Your task to perform on an android device: Open the calendar app, open the side menu, and click the "Day" option Image 0: 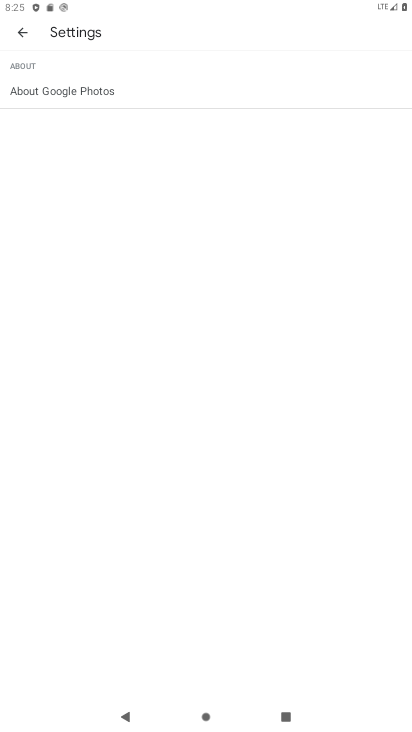
Step 0: drag from (216, 687) to (195, 348)
Your task to perform on an android device: Open the calendar app, open the side menu, and click the "Day" option Image 1: 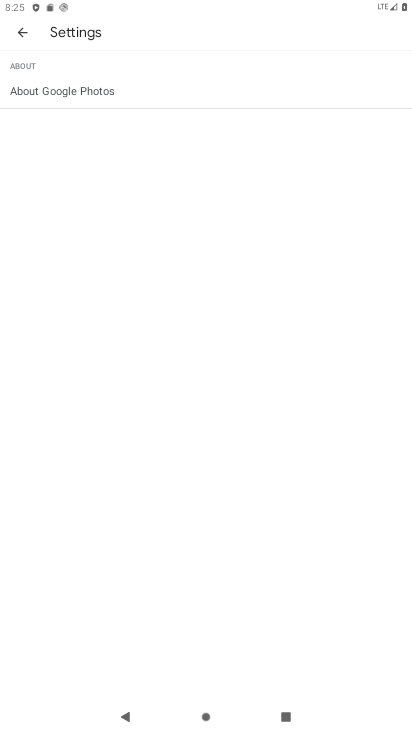
Step 1: press home button
Your task to perform on an android device: Open the calendar app, open the side menu, and click the "Day" option Image 2: 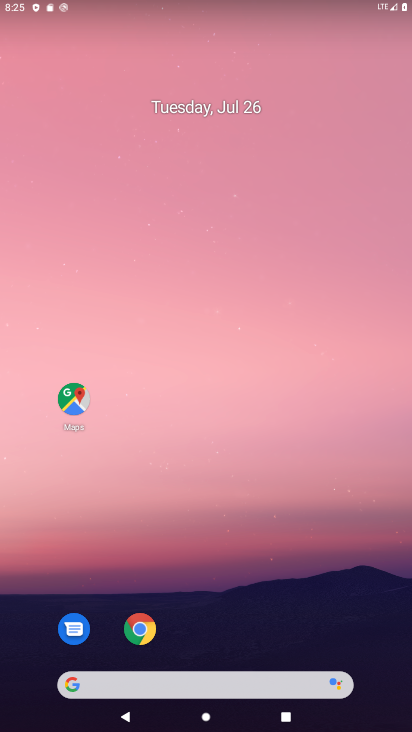
Step 2: drag from (216, 648) to (215, 36)
Your task to perform on an android device: Open the calendar app, open the side menu, and click the "Day" option Image 3: 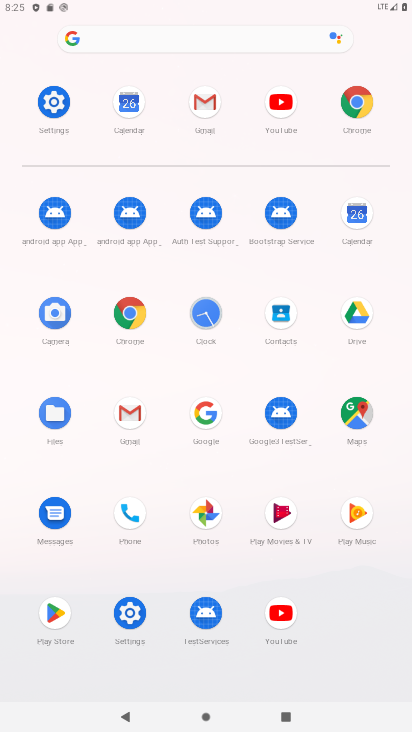
Step 3: click (364, 203)
Your task to perform on an android device: Open the calendar app, open the side menu, and click the "Day" option Image 4: 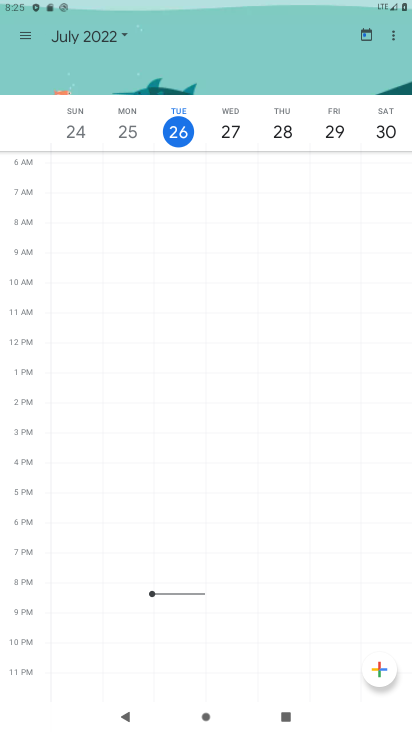
Step 4: click (17, 38)
Your task to perform on an android device: Open the calendar app, open the side menu, and click the "Day" option Image 5: 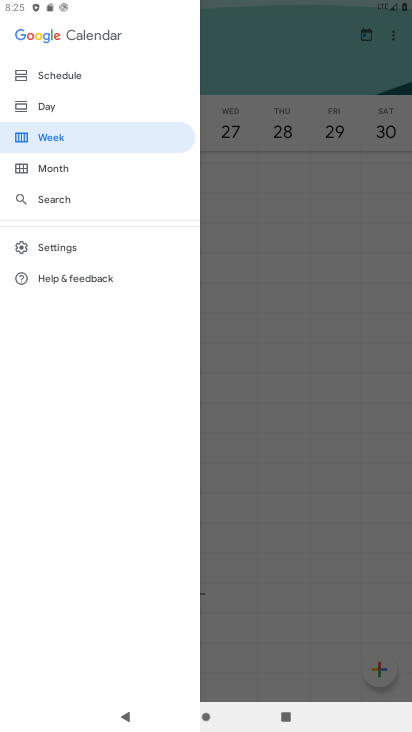
Step 5: click (12, 40)
Your task to perform on an android device: Open the calendar app, open the side menu, and click the "Day" option Image 6: 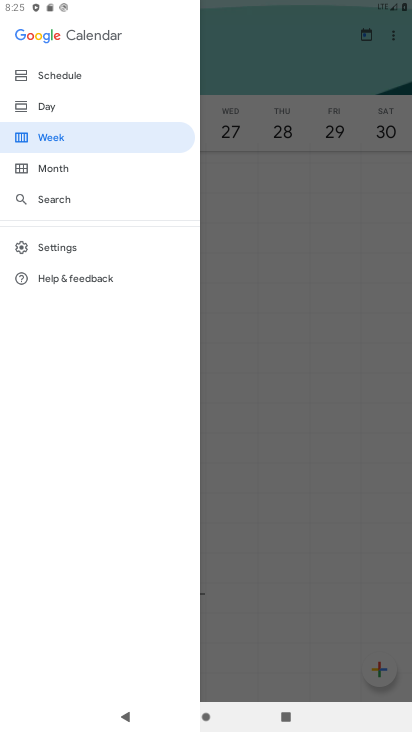
Step 6: click (57, 107)
Your task to perform on an android device: Open the calendar app, open the side menu, and click the "Day" option Image 7: 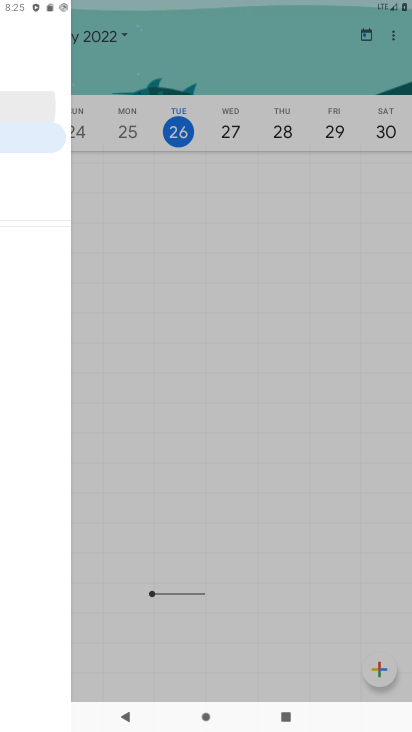
Step 7: click (50, 105)
Your task to perform on an android device: Open the calendar app, open the side menu, and click the "Day" option Image 8: 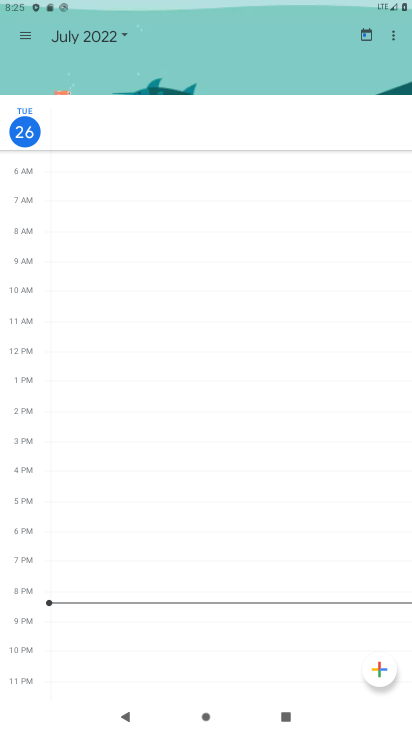
Step 8: click (29, 45)
Your task to perform on an android device: Open the calendar app, open the side menu, and click the "Day" option Image 9: 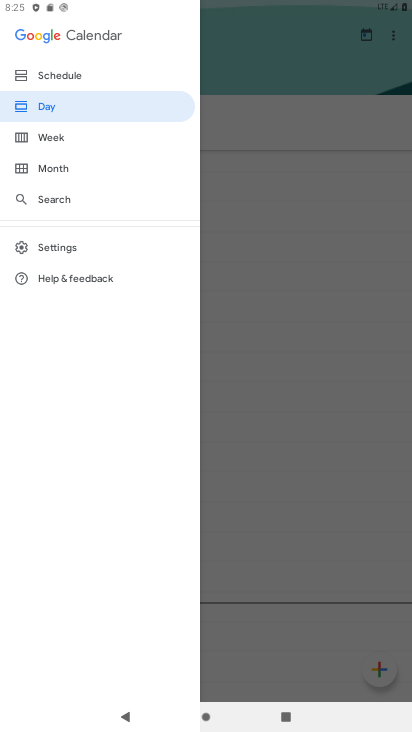
Step 9: click (71, 99)
Your task to perform on an android device: Open the calendar app, open the side menu, and click the "Day" option Image 10: 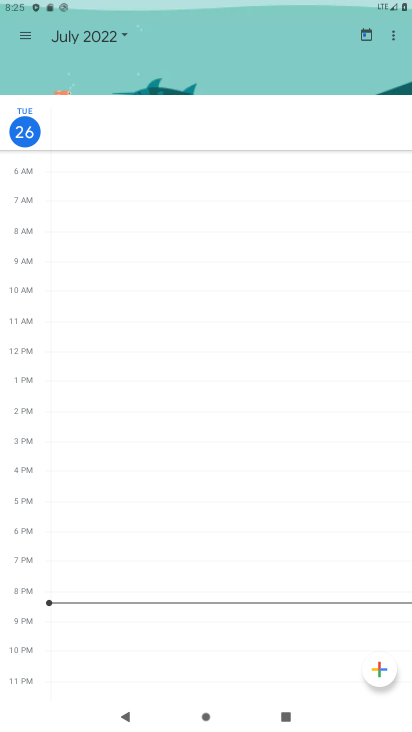
Step 10: task complete